Your task to perform on an android device: Go to eBay Image 0: 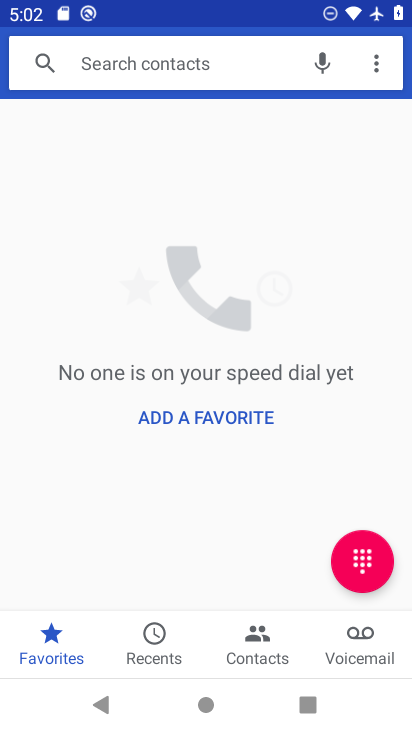
Step 0: press home button
Your task to perform on an android device: Go to eBay Image 1: 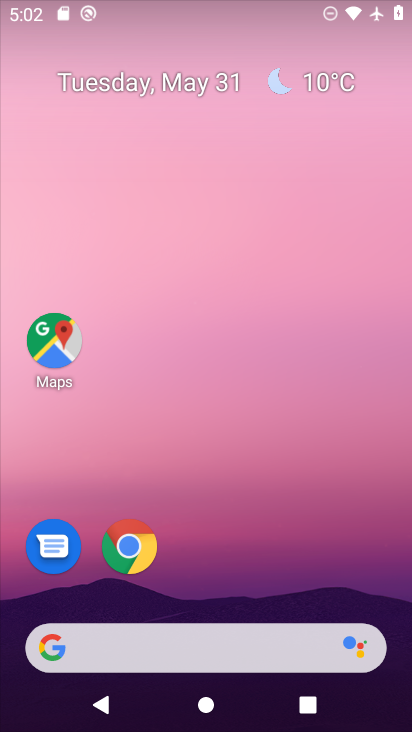
Step 1: click (134, 548)
Your task to perform on an android device: Go to eBay Image 2: 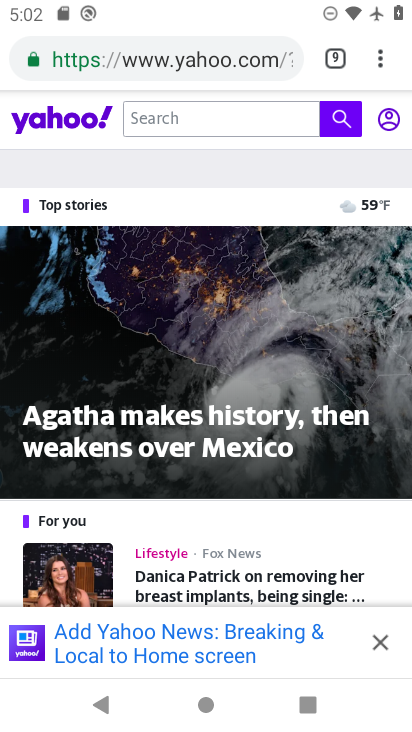
Step 2: click (333, 54)
Your task to perform on an android device: Go to eBay Image 3: 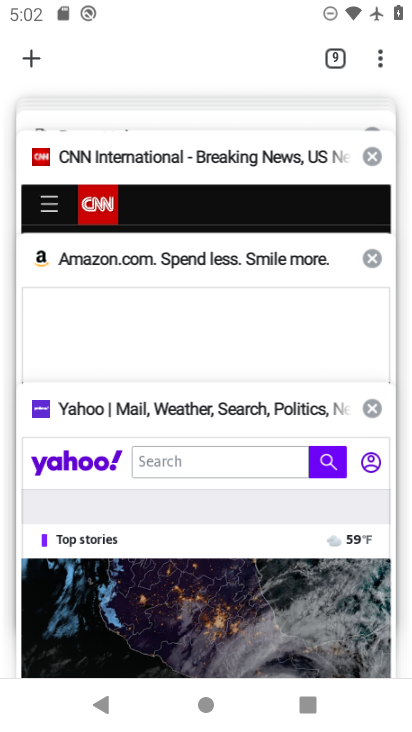
Step 3: drag from (207, 185) to (186, 652)
Your task to perform on an android device: Go to eBay Image 4: 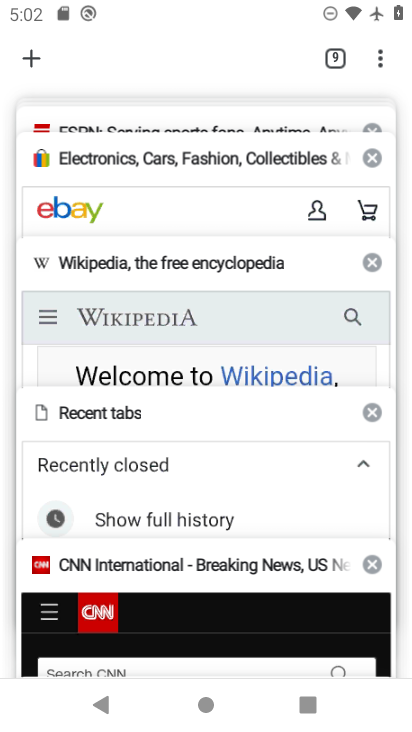
Step 4: click (146, 209)
Your task to perform on an android device: Go to eBay Image 5: 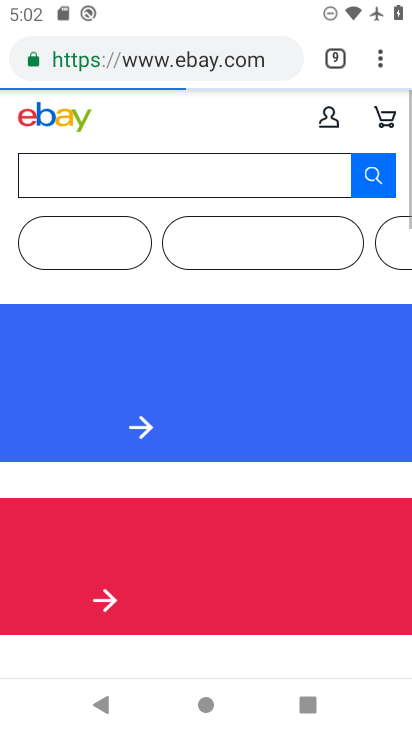
Step 5: task complete